Your task to perform on an android device: Open the stopwatch Image 0: 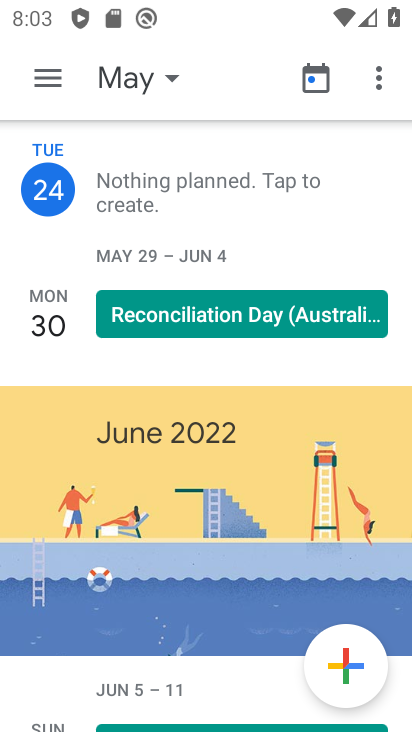
Step 0: press home button
Your task to perform on an android device: Open the stopwatch Image 1: 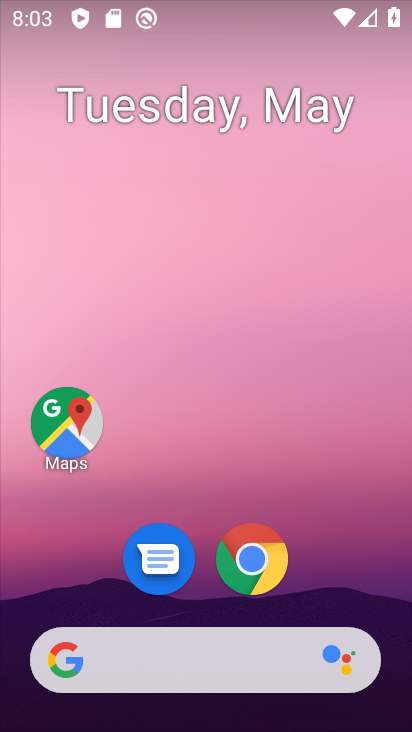
Step 1: drag from (185, 650) to (120, 103)
Your task to perform on an android device: Open the stopwatch Image 2: 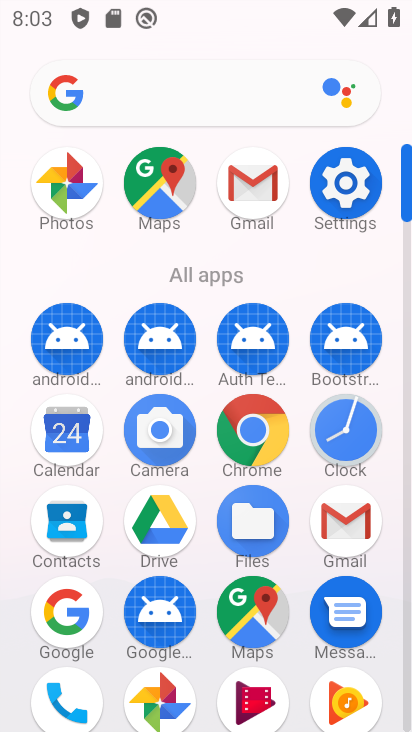
Step 2: click (334, 440)
Your task to perform on an android device: Open the stopwatch Image 3: 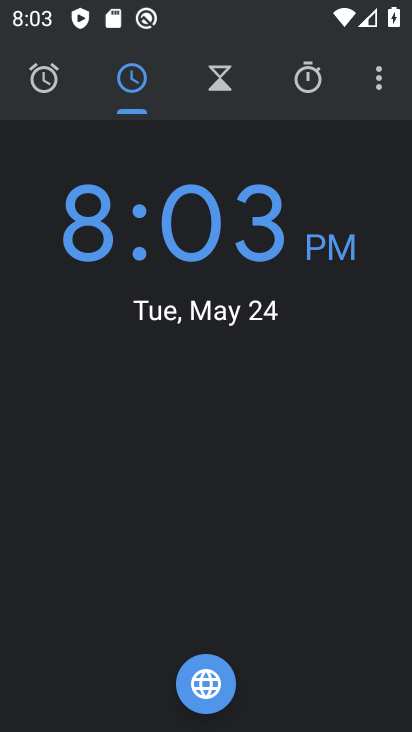
Step 3: click (314, 80)
Your task to perform on an android device: Open the stopwatch Image 4: 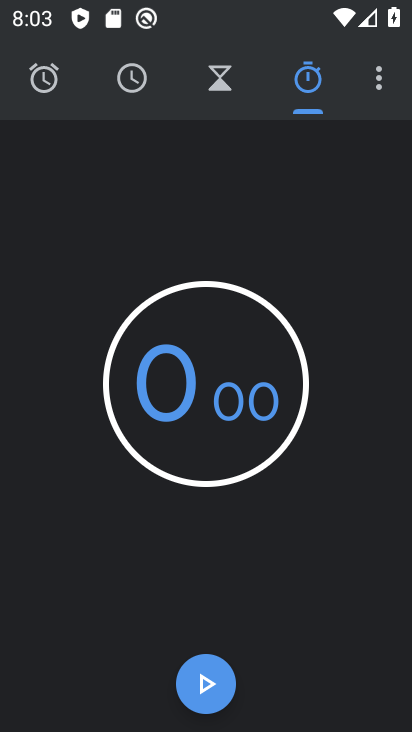
Step 4: task complete